Your task to perform on an android device: Go to Yahoo.com Image 0: 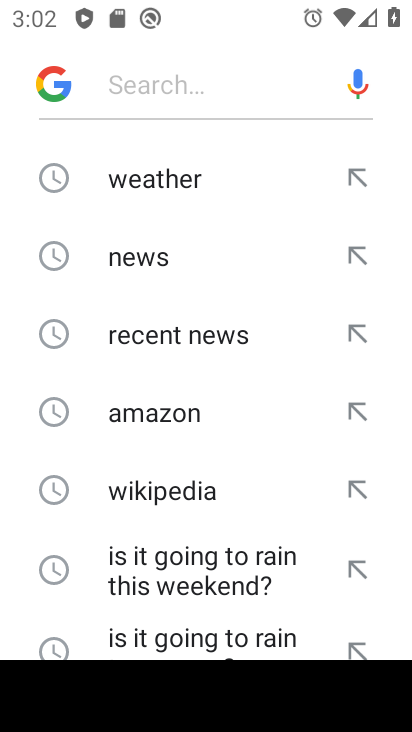
Step 0: type "yahoo.com"
Your task to perform on an android device: Go to Yahoo.com Image 1: 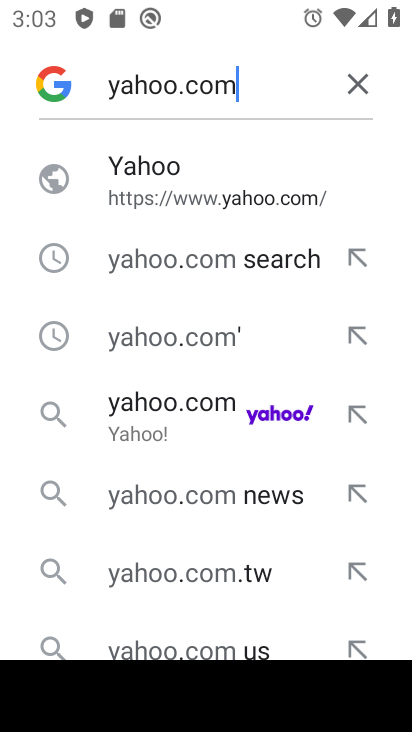
Step 1: click (253, 166)
Your task to perform on an android device: Go to Yahoo.com Image 2: 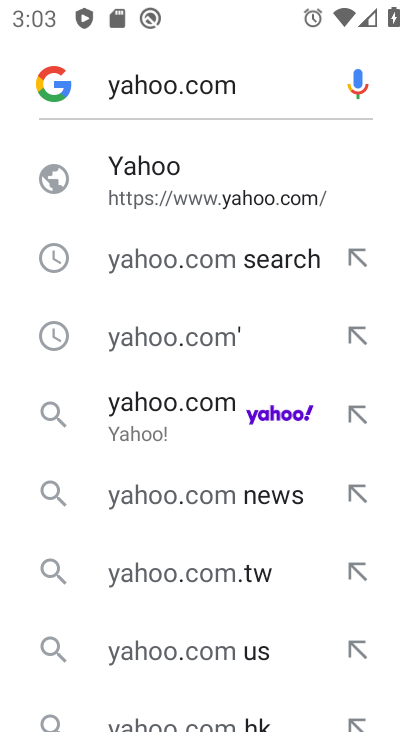
Step 2: task complete